Your task to perform on an android device: allow cookies in the chrome app Image 0: 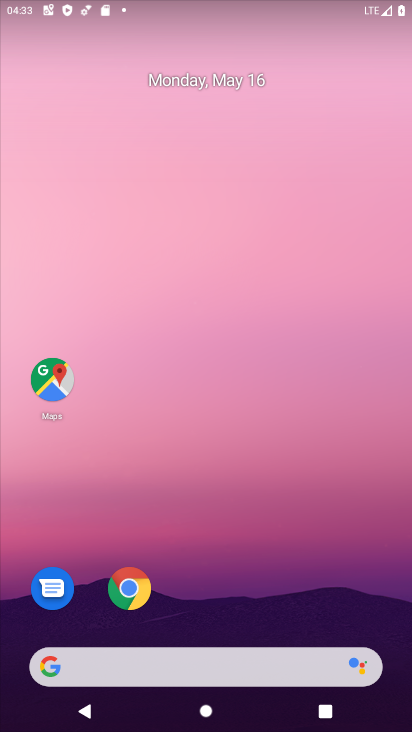
Step 0: drag from (286, 447) to (298, 32)
Your task to perform on an android device: allow cookies in the chrome app Image 1: 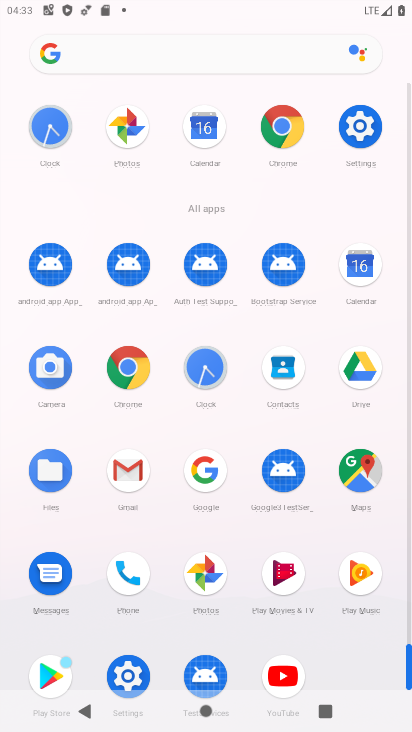
Step 1: drag from (20, 476) to (10, 184)
Your task to perform on an android device: allow cookies in the chrome app Image 2: 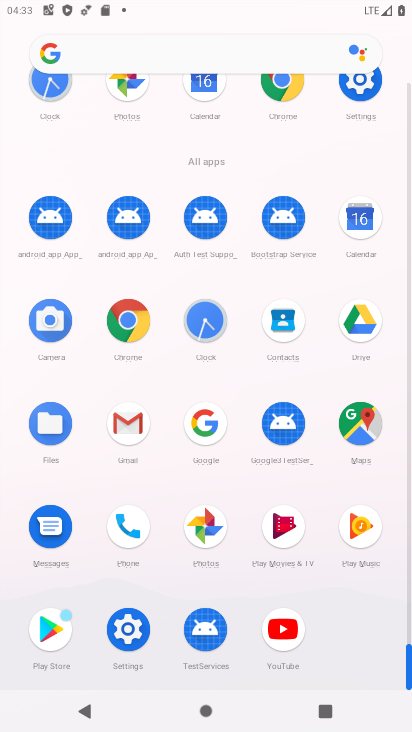
Step 2: click (124, 317)
Your task to perform on an android device: allow cookies in the chrome app Image 3: 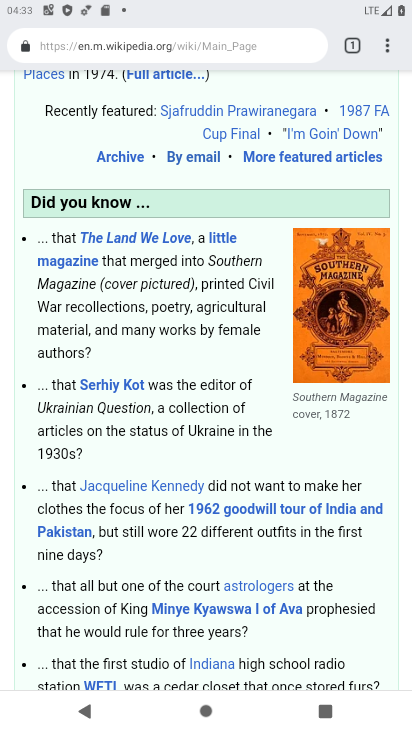
Step 3: drag from (388, 44) to (223, 550)
Your task to perform on an android device: allow cookies in the chrome app Image 4: 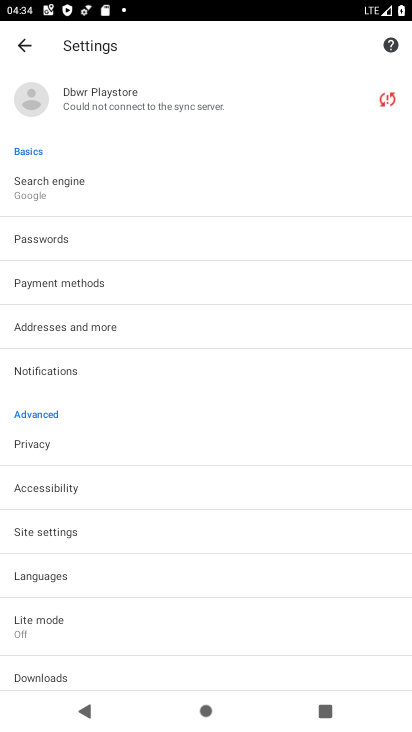
Step 4: drag from (231, 613) to (241, 287)
Your task to perform on an android device: allow cookies in the chrome app Image 5: 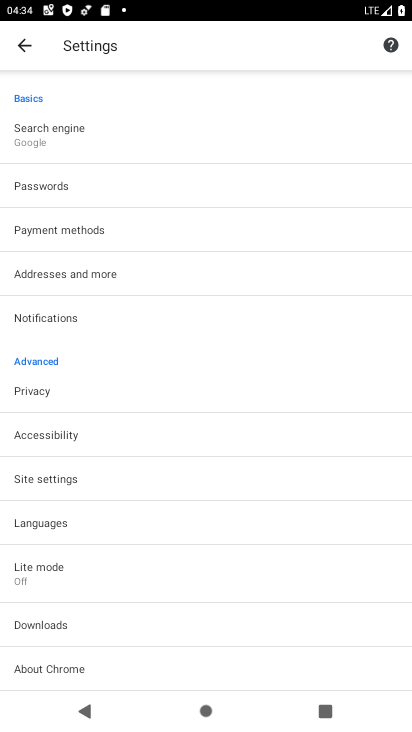
Step 5: click (76, 482)
Your task to perform on an android device: allow cookies in the chrome app Image 6: 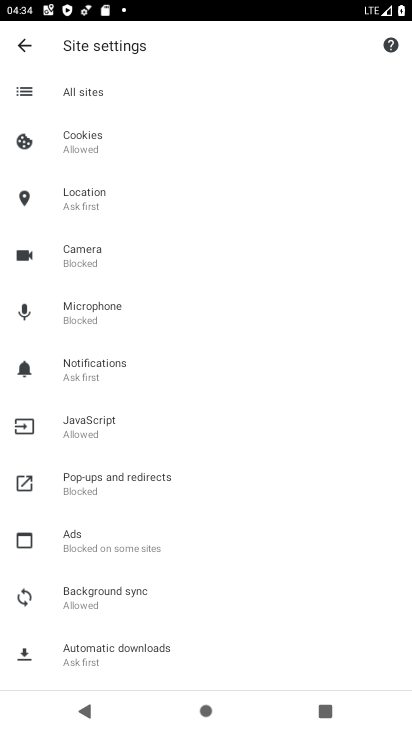
Step 6: click (122, 144)
Your task to perform on an android device: allow cookies in the chrome app Image 7: 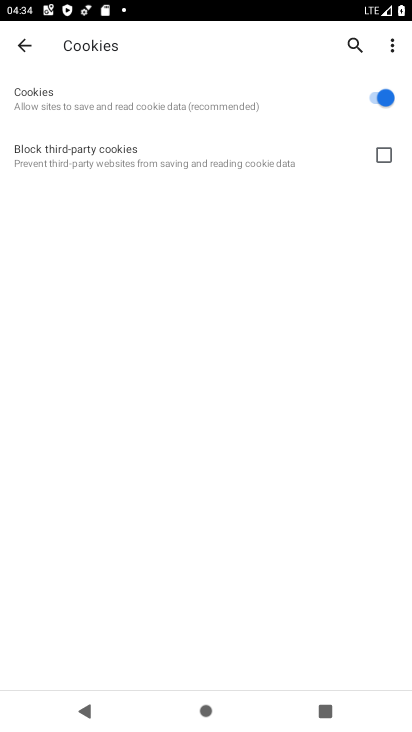
Step 7: task complete